Your task to perform on an android device: Open internet settings Image 0: 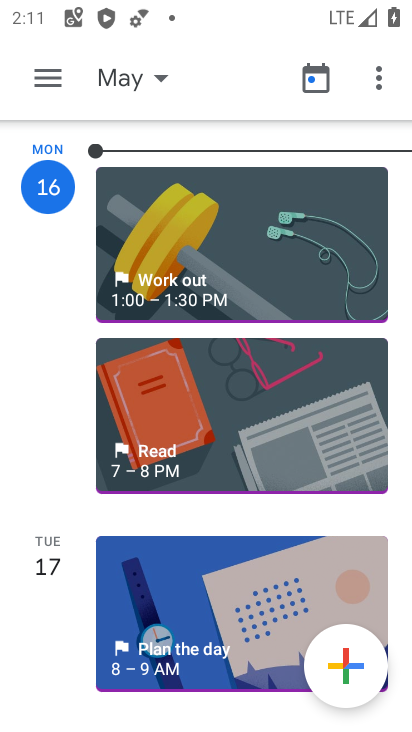
Step 0: press back button
Your task to perform on an android device: Open internet settings Image 1: 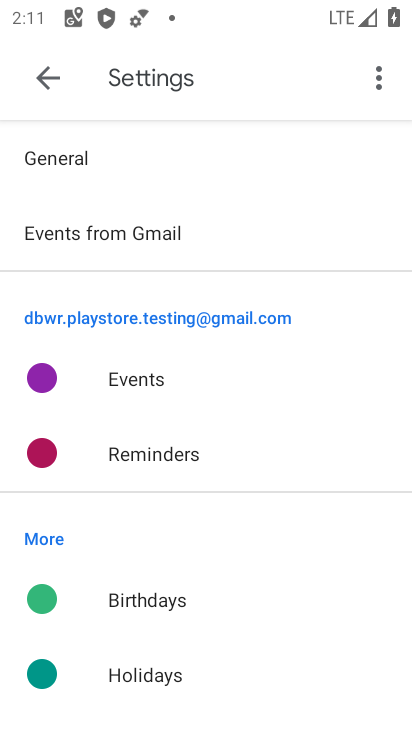
Step 1: press home button
Your task to perform on an android device: Open internet settings Image 2: 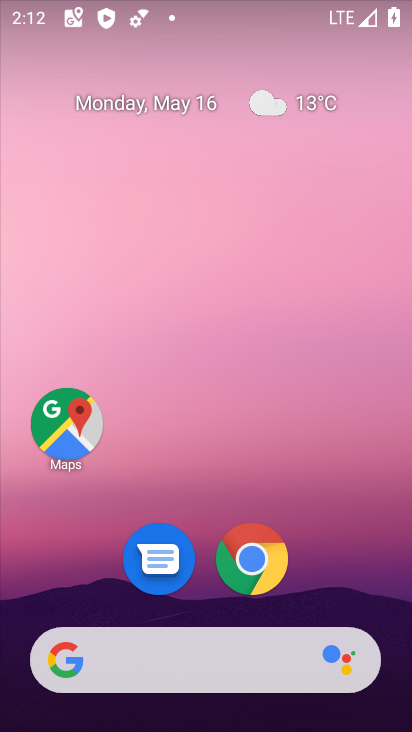
Step 2: drag from (108, 560) to (277, 61)
Your task to perform on an android device: Open internet settings Image 3: 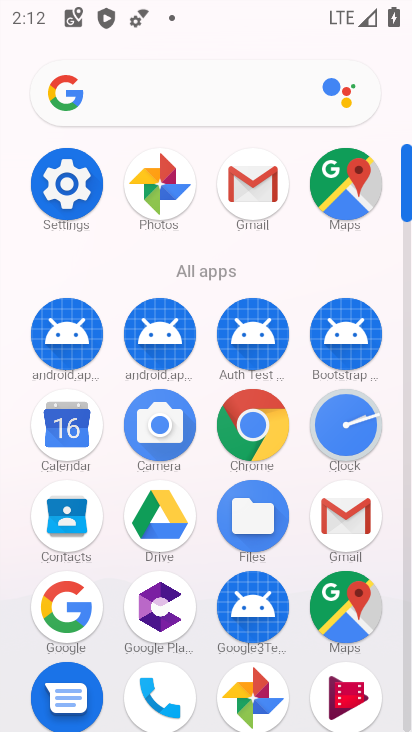
Step 3: click (75, 188)
Your task to perform on an android device: Open internet settings Image 4: 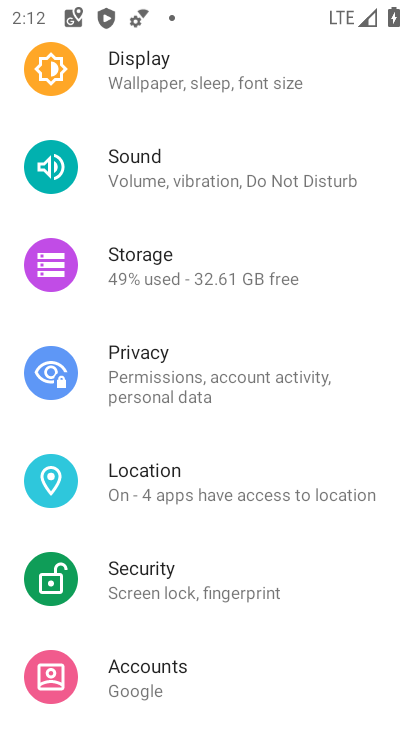
Step 4: drag from (249, 176) to (172, 721)
Your task to perform on an android device: Open internet settings Image 5: 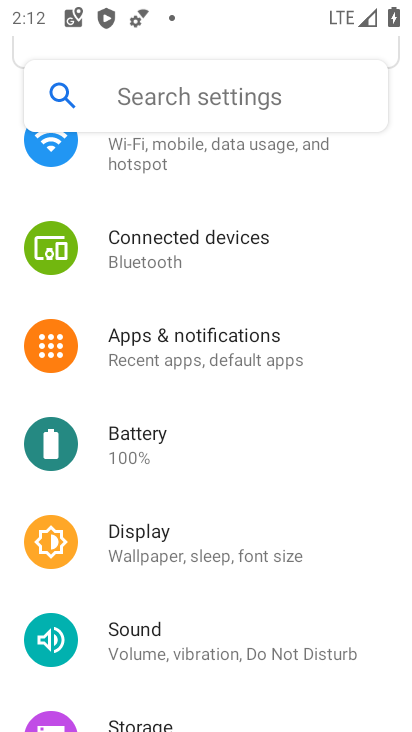
Step 5: drag from (178, 220) to (178, 689)
Your task to perform on an android device: Open internet settings Image 6: 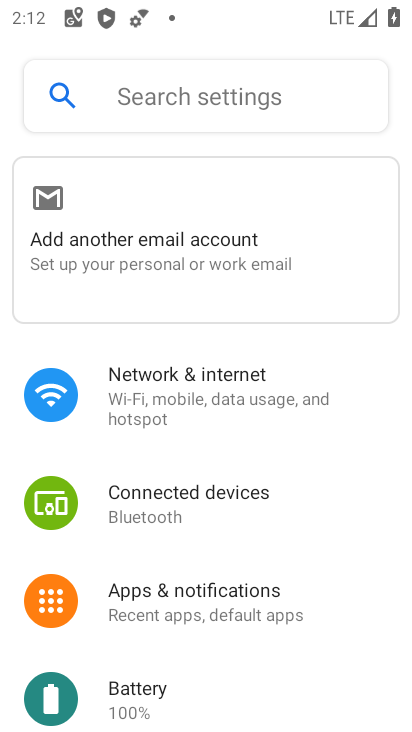
Step 6: click (176, 396)
Your task to perform on an android device: Open internet settings Image 7: 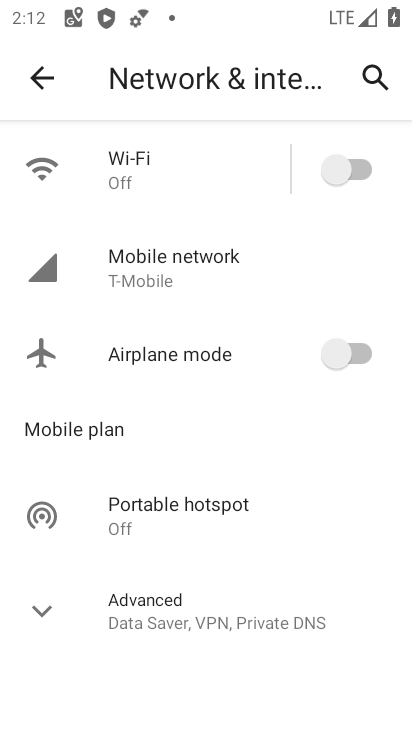
Step 7: task complete